Your task to perform on an android device: turn off airplane mode Image 0: 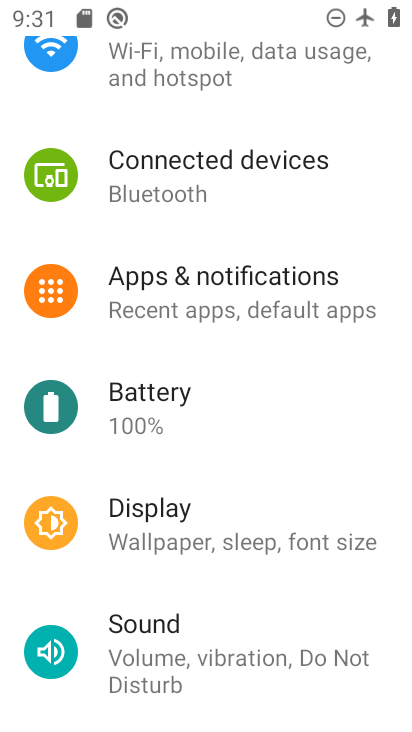
Step 0: press home button
Your task to perform on an android device: turn off airplane mode Image 1: 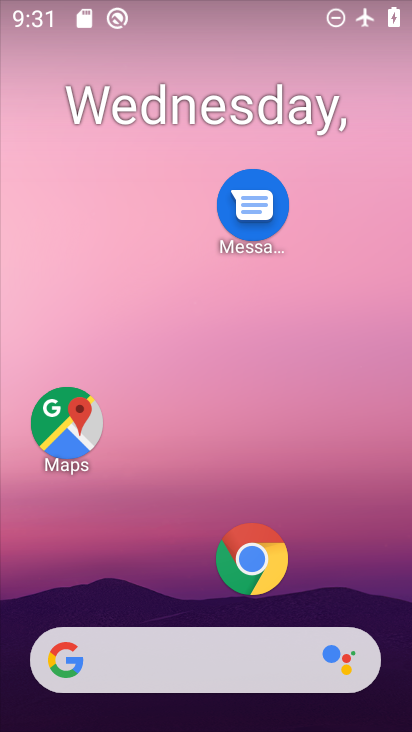
Step 1: drag from (155, 653) to (214, 221)
Your task to perform on an android device: turn off airplane mode Image 2: 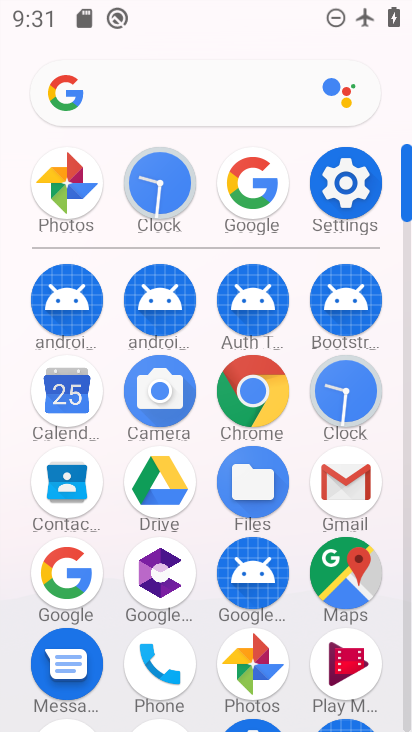
Step 2: click (349, 200)
Your task to perform on an android device: turn off airplane mode Image 3: 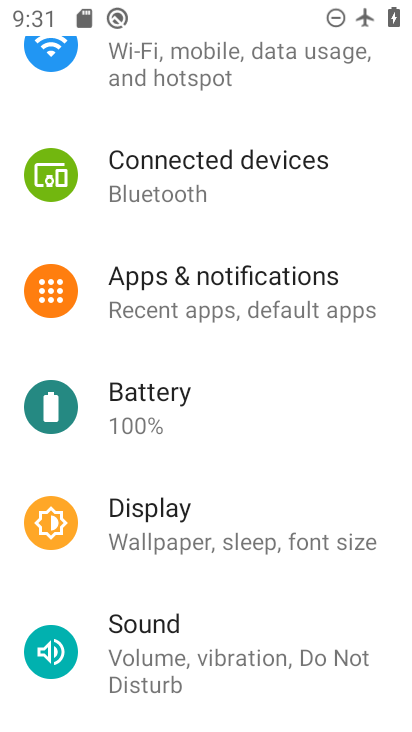
Step 3: drag from (270, 263) to (201, 623)
Your task to perform on an android device: turn off airplane mode Image 4: 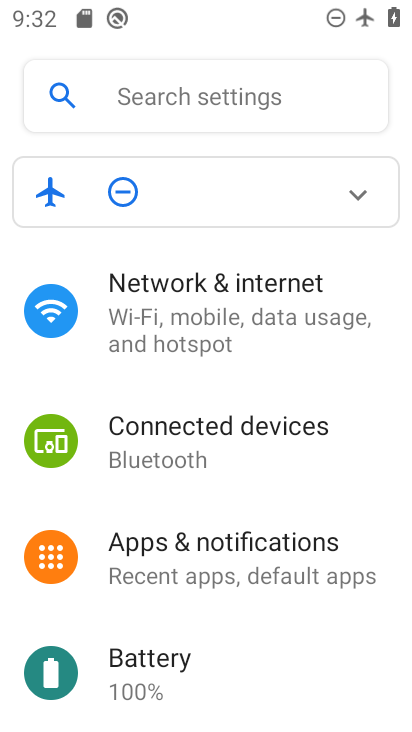
Step 4: click (243, 334)
Your task to perform on an android device: turn off airplane mode Image 5: 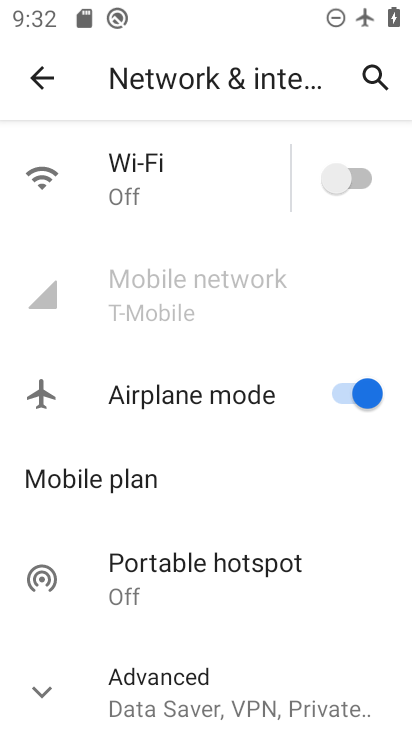
Step 5: click (224, 359)
Your task to perform on an android device: turn off airplane mode Image 6: 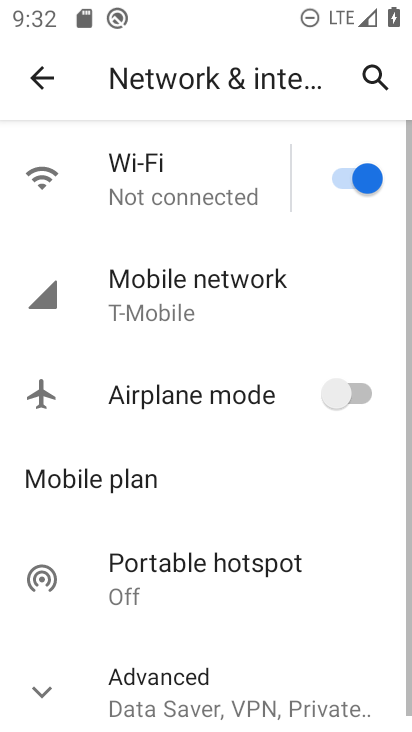
Step 6: task complete